Your task to perform on an android device: turn on showing notifications on the lock screen Image 0: 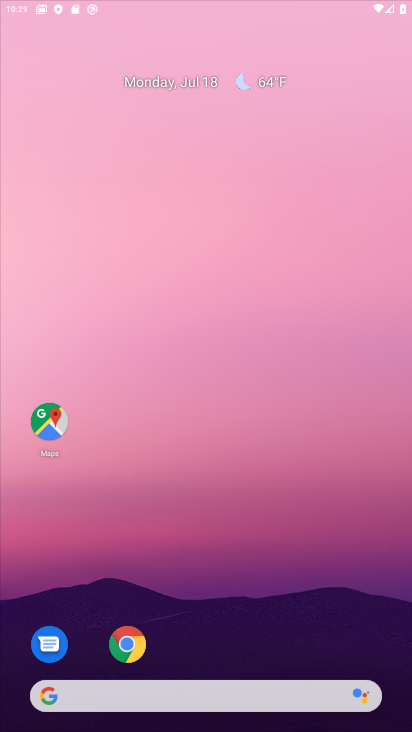
Step 0: click (252, 59)
Your task to perform on an android device: turn on showing notifications on the lock screen Image 1: 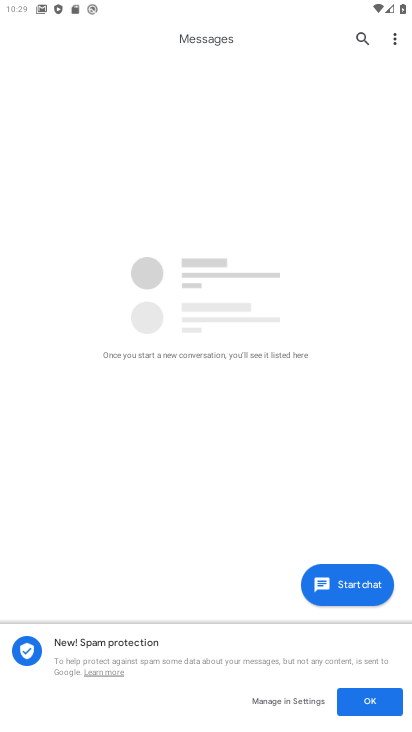
Step 1: press home button
Your task to perform on an android device: turn on showing notifications on the lock screen Image 2: 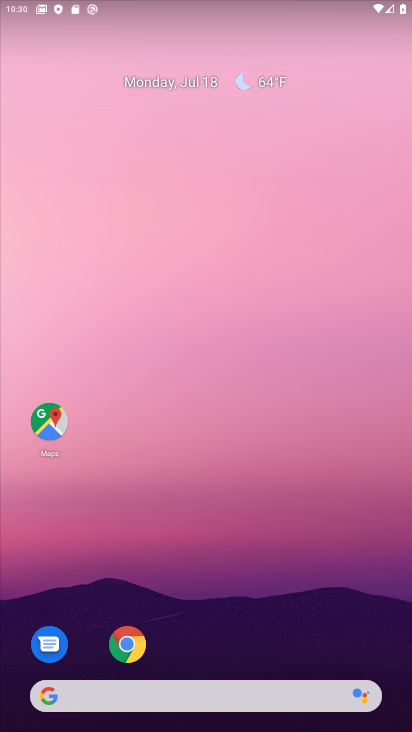
Step 2: drag from (266, 601) to (334, 143)
Your task to perform on an android device: turn on showing notifications on the lock screen Image 3: 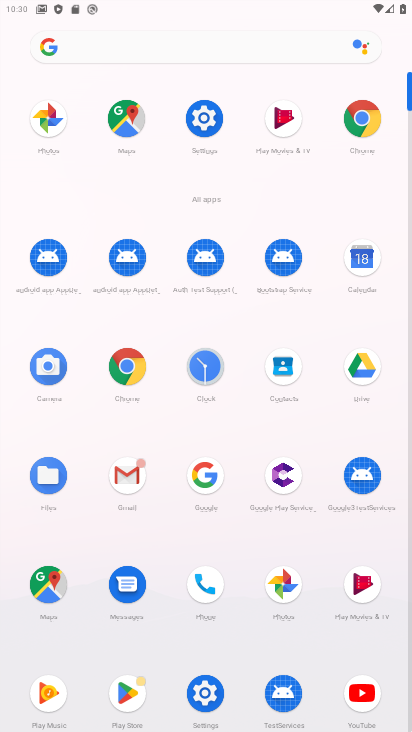
Step 3: click (215, 122)
Your task to perform on an android device: turn on showing notifications on the lock screen Image 4: 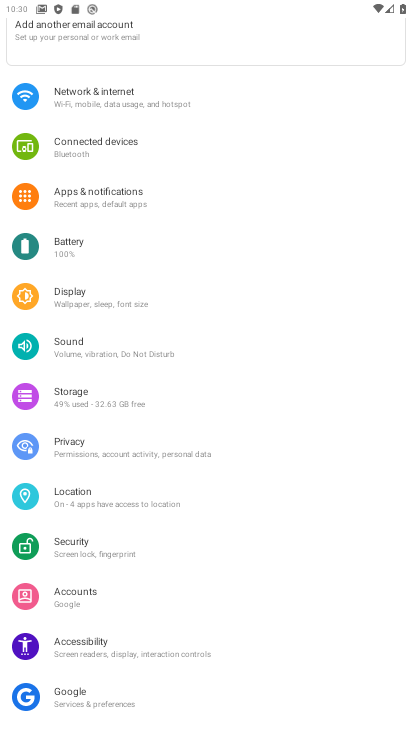
Step 4: click (111, 210)
Your task to perform on an android device: turn on showing notifications on the lock screen Image 5: 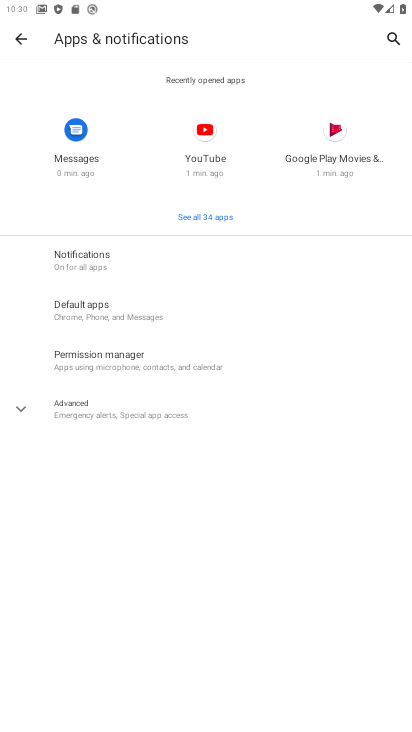
Step 5: click (122, 253)
Your task to perform on an android device: turn on showing notifications on the lock screen Image 6: 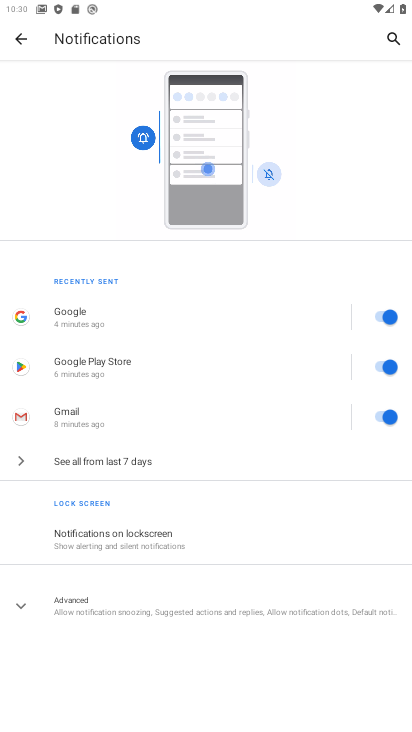
Step 6: click (146, 533)
Your task to perform on an android device: turn on showing notifications on the lock screen Image 7: 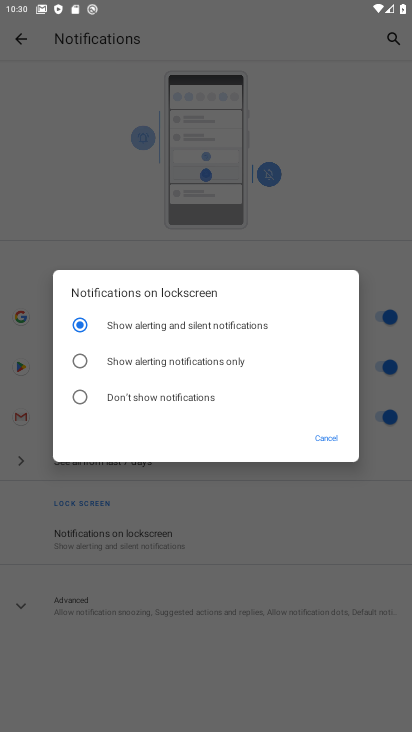
Step 7: click (161, 363)
Your task to perform on an android device: turn on showing notifications on the lock screen Image 8: 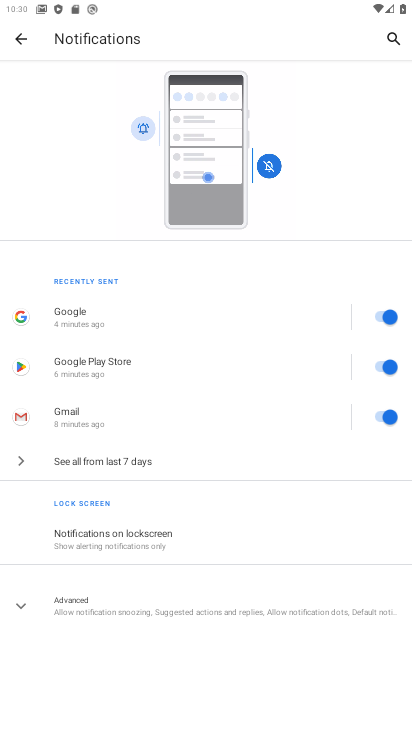
Step 8: task complete